Your task to perform on an android device: turn on notifications settings in the gmail app Image 0: 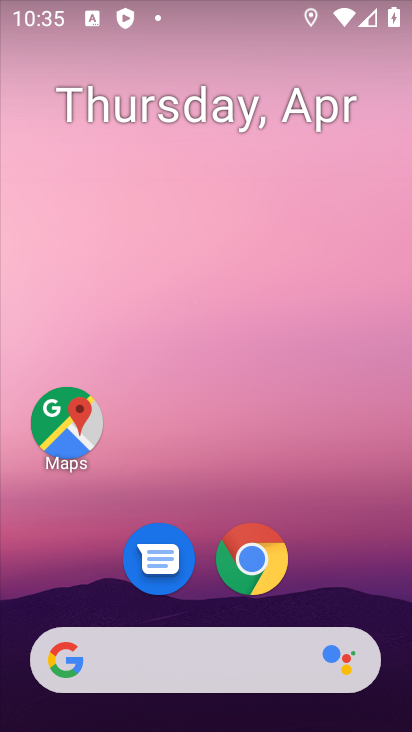
Step 0: drag from (231, 721) to (239, 95)
Your task to perform on an android device: turn on notifications settings in the gmail app Image 1: 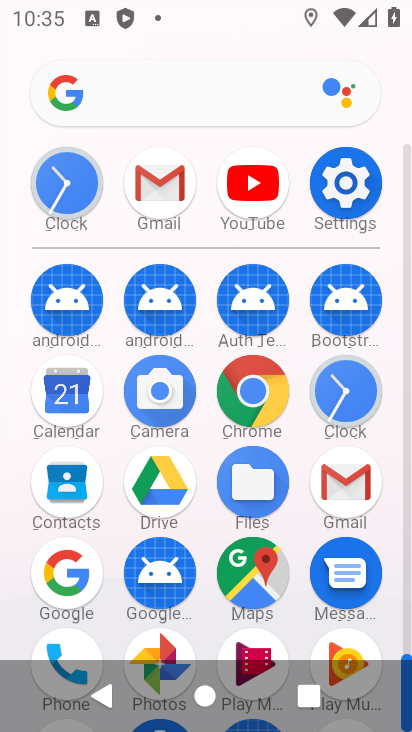
Step 1: click (155, 185)
Your task to perform on an android device: turn on notifications settings in the gmail app Image 2: 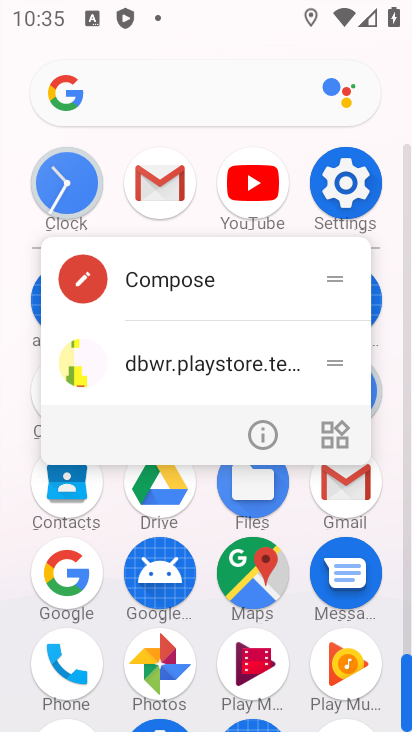
Step 2: click (253, 436)
Your task to perform on an android device: turn on notifications settings in the gmail app Image 3: 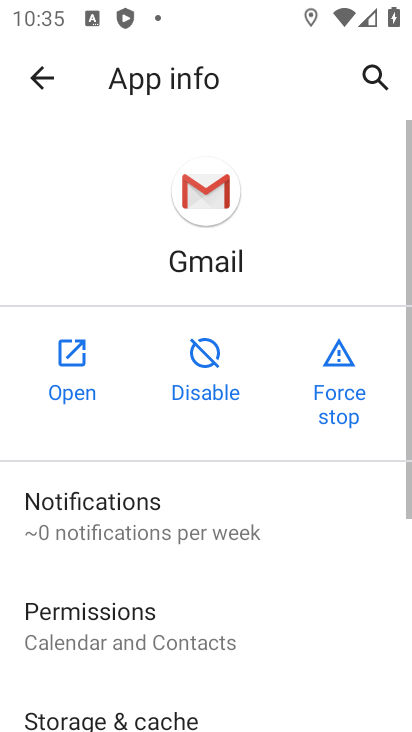
Step 3: click (152, 533)
Your task to perform on an android device: turn on notifications settings in the gmail app Image 4: 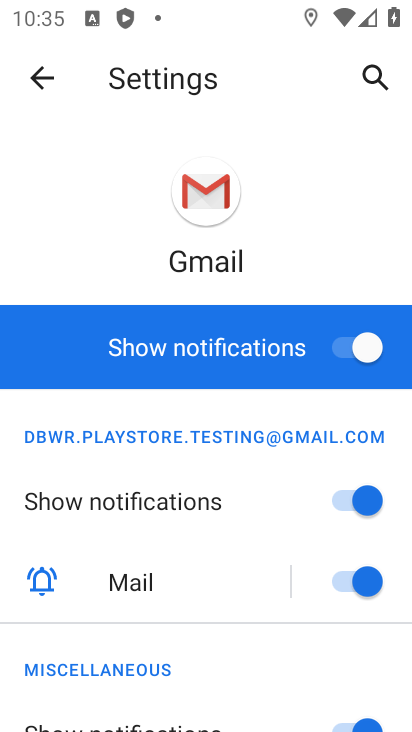
Step 4: task complete